Your task to perform on an android device: turn smart compose on in the gmail app Image 0: 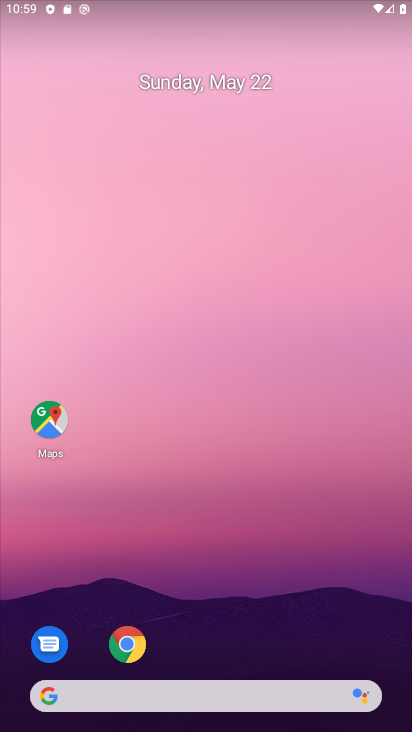
Step 0: drag from (269, 587) to (232, 5)
Your task to perform on an android device: turn smart compose on in the gmail app Image 1: 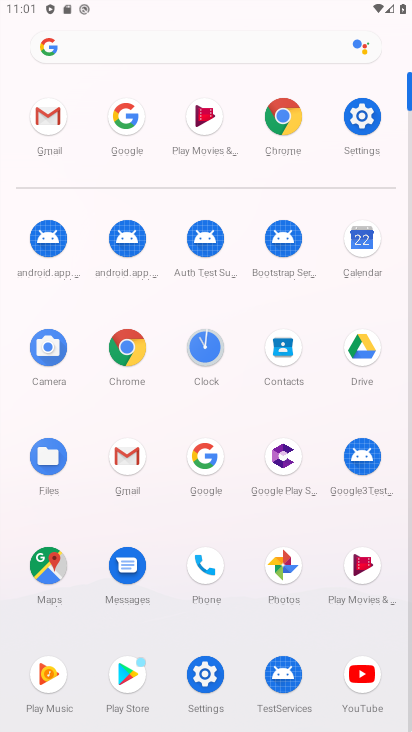
Step 1: click (137, 472)
Your task to perform on an android device: turn smart compose on in the gmail app Image 2: 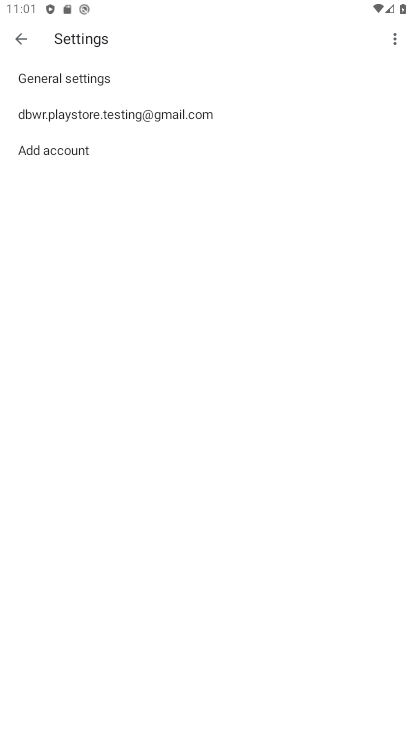
Step 2: click (158, 112)
Your task to perform on an android device: turn smart compose on in the gmail app Image 3: 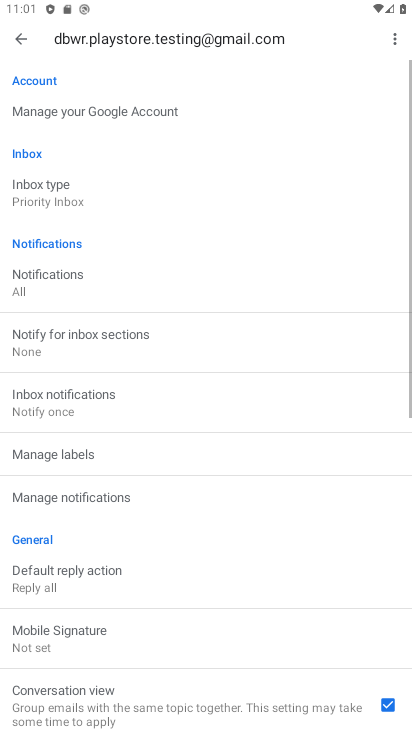
Step 3: task complete